Your task to perform on an android device: check battery use Image 0: 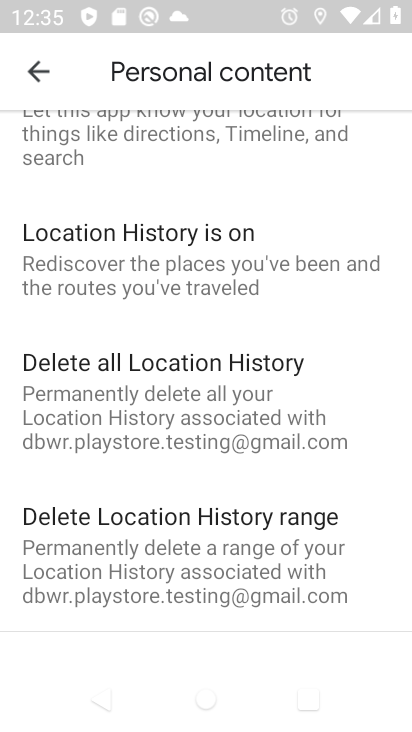
Step 0: press home button
Your task to perform on an android device: check battery use Image 1: 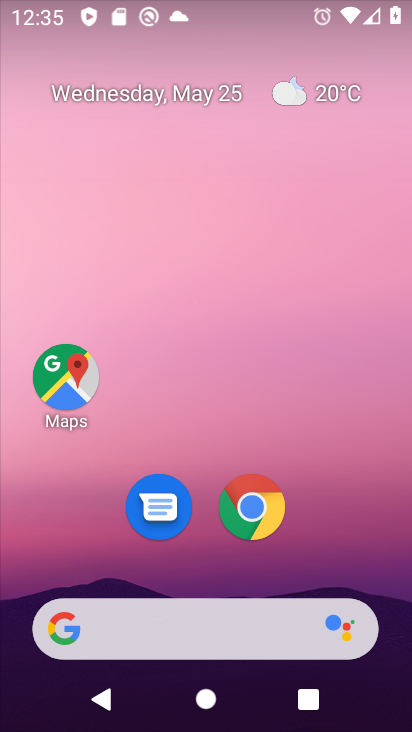
Step 1: drag from (342, 505) to (343, 166)
Your task to perform on an android device: check battery use Image 2: 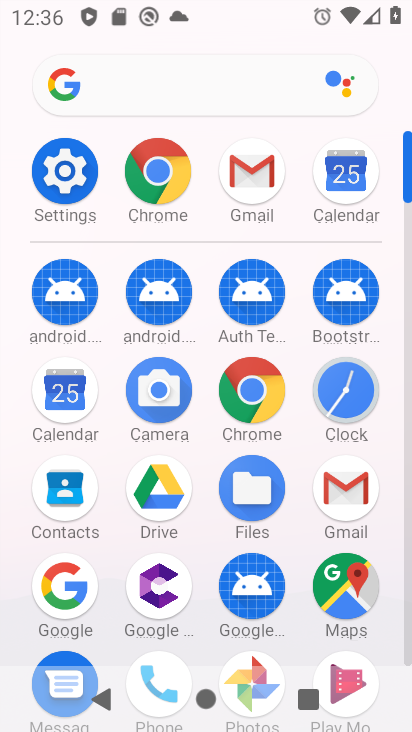
Step 2: click (68, 153)
Your task to perform on an android device: check battery use Image 3: 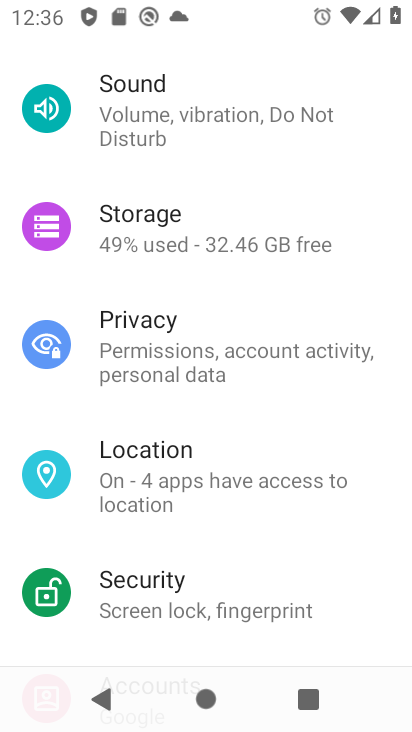
Step 3: drag from (205, 202) to (205, 563)
Your task to perform on an android device: check battery use Image 4: 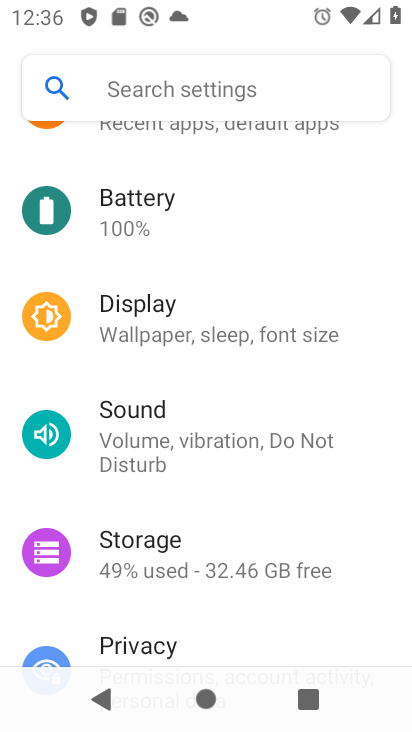
Step 4: click (169, 230)
Your task to perform on an android device: check battery use Image 5: 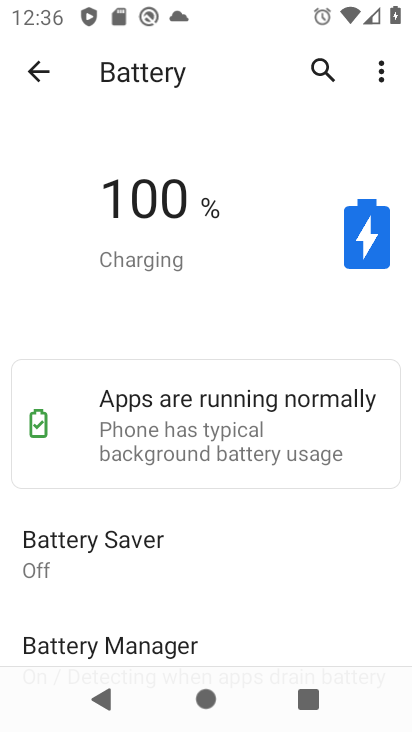
Step 5: task complete